Your task to perform on an android device: Go to battery settings Image 0: 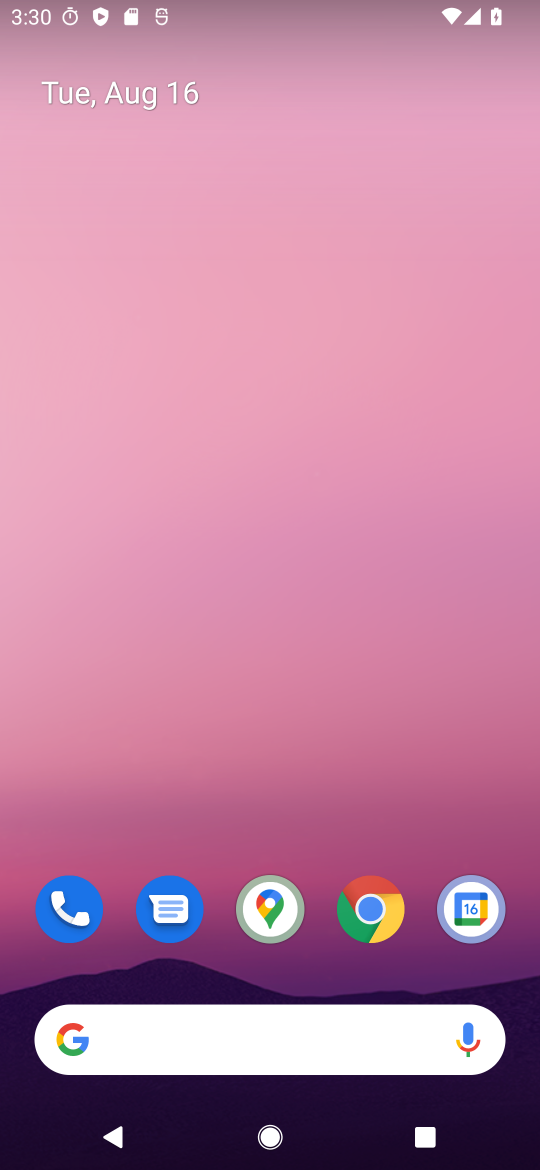
Step 0: drag from (254, 893) to (325, 277)
Your task to perform on an android device: Go to battery settings Image 1: 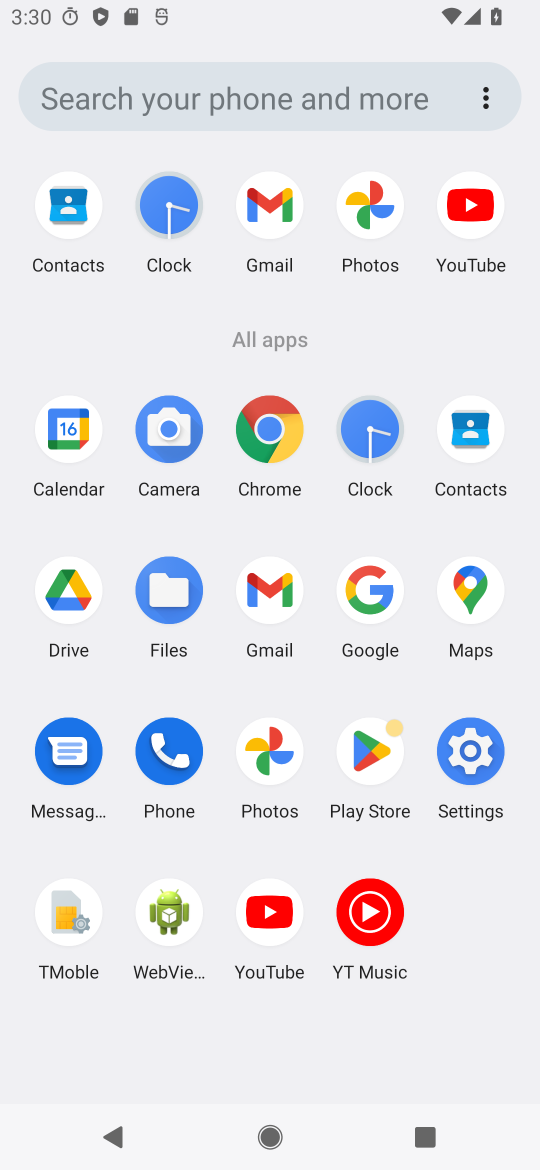
Step 1: click (469, 748)
Your task to perform on an android device: Go to battery settings Image 2: 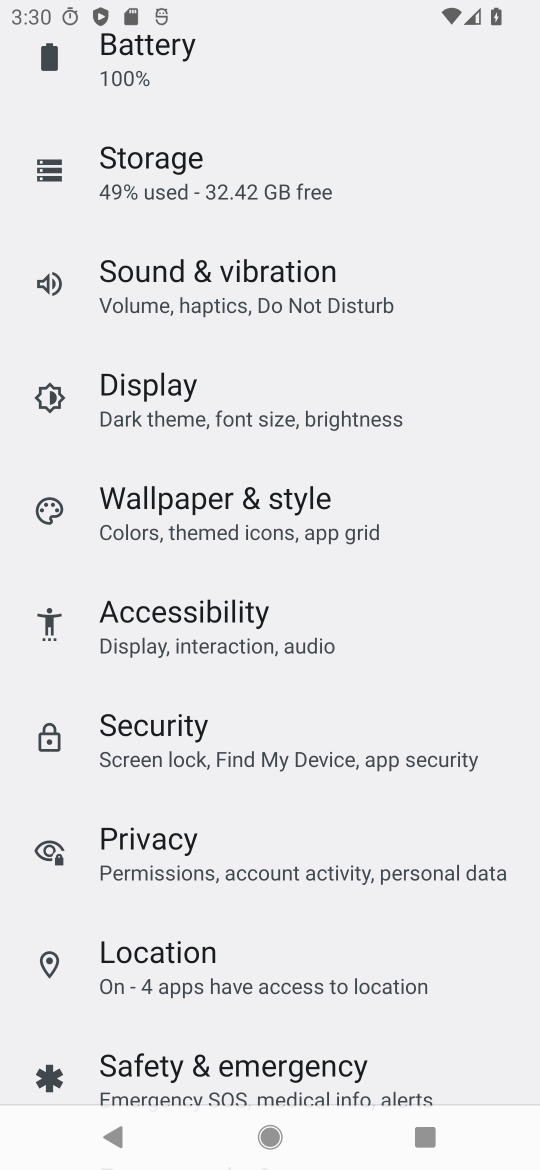
Step 2: click (122, 60)
Your task to perform on an android device: Go to battery settings Image 3: 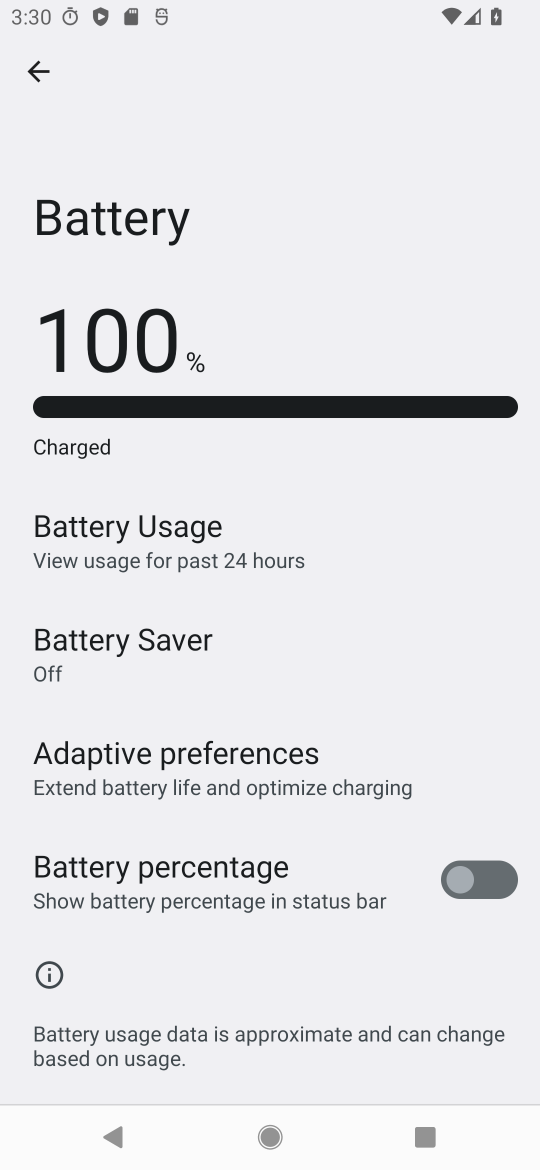
Step 3: task complete